Your task to perform on an android device: Open the calendar app, open the side menu, and click the "Day" option Image 0: 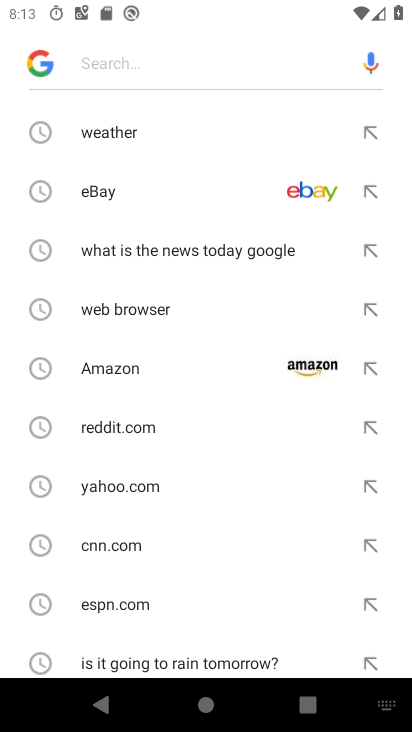
Step 0: press home button
Your task to perform on an android device: Open the calendar app, open the side menu, and click the "Day" option Image 1: 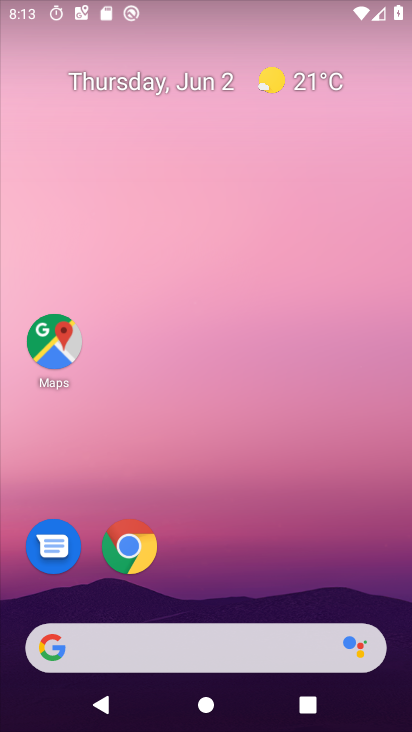
Step 1: drag from (342, 572) to (306, 166)
Your task to perform on an android device: Open the calendar app, open the side menu, and click the "Day" option Image 2: 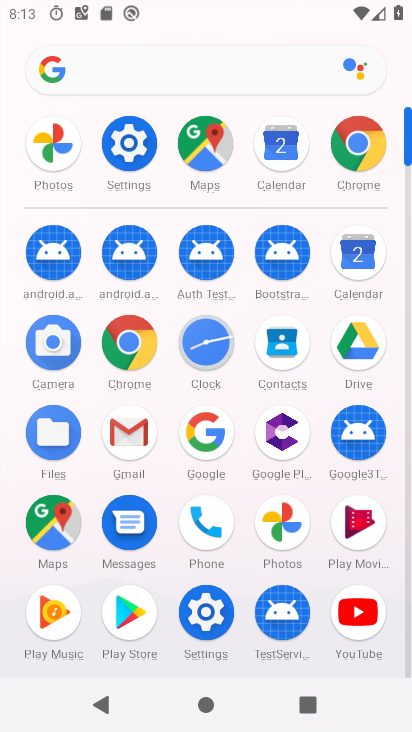
Step 2: click (375, 250)
Your task to perform on an android device: Open the calendar app, open the side menu, and click the "Day" option Image 3: 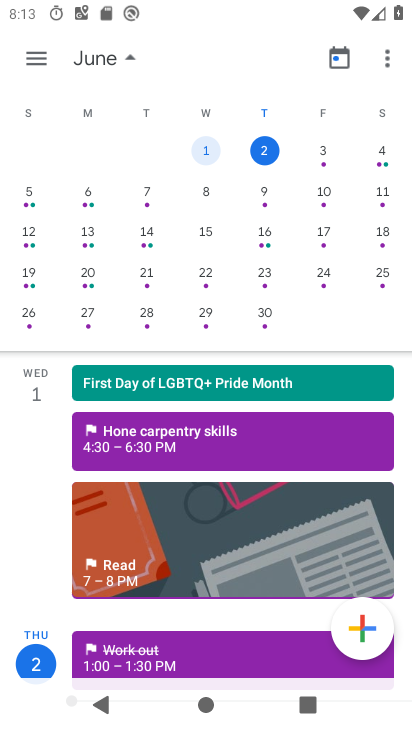
Step 3: click (41, 52)
Your task to perform on an android device: Open the calendar app, open the side menu, and click the "Day" option Image 4: 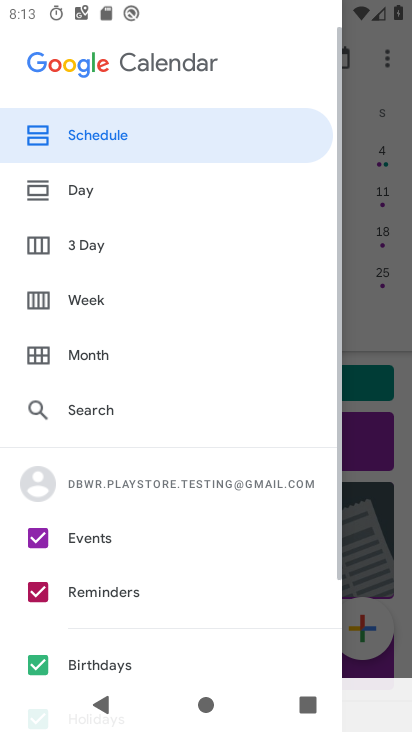
Step 4: click (136, 187)
Your task to perform on an android device: Open the calendar app, open the side menu, and click the "Day" option Image 5: 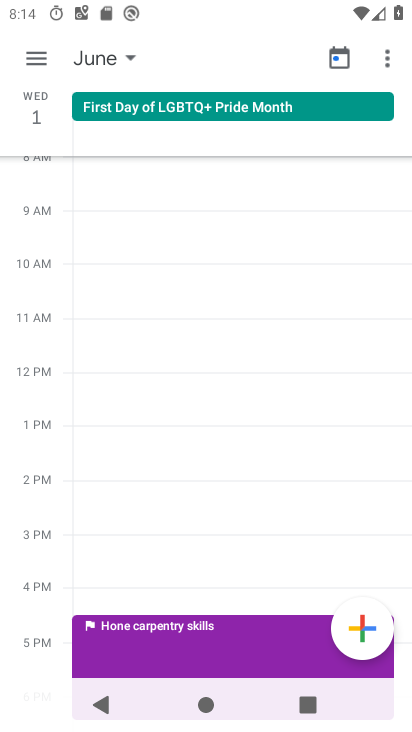
Step 5: task complete